Your task to perform on an android device: Go to CNN.com Image 0: 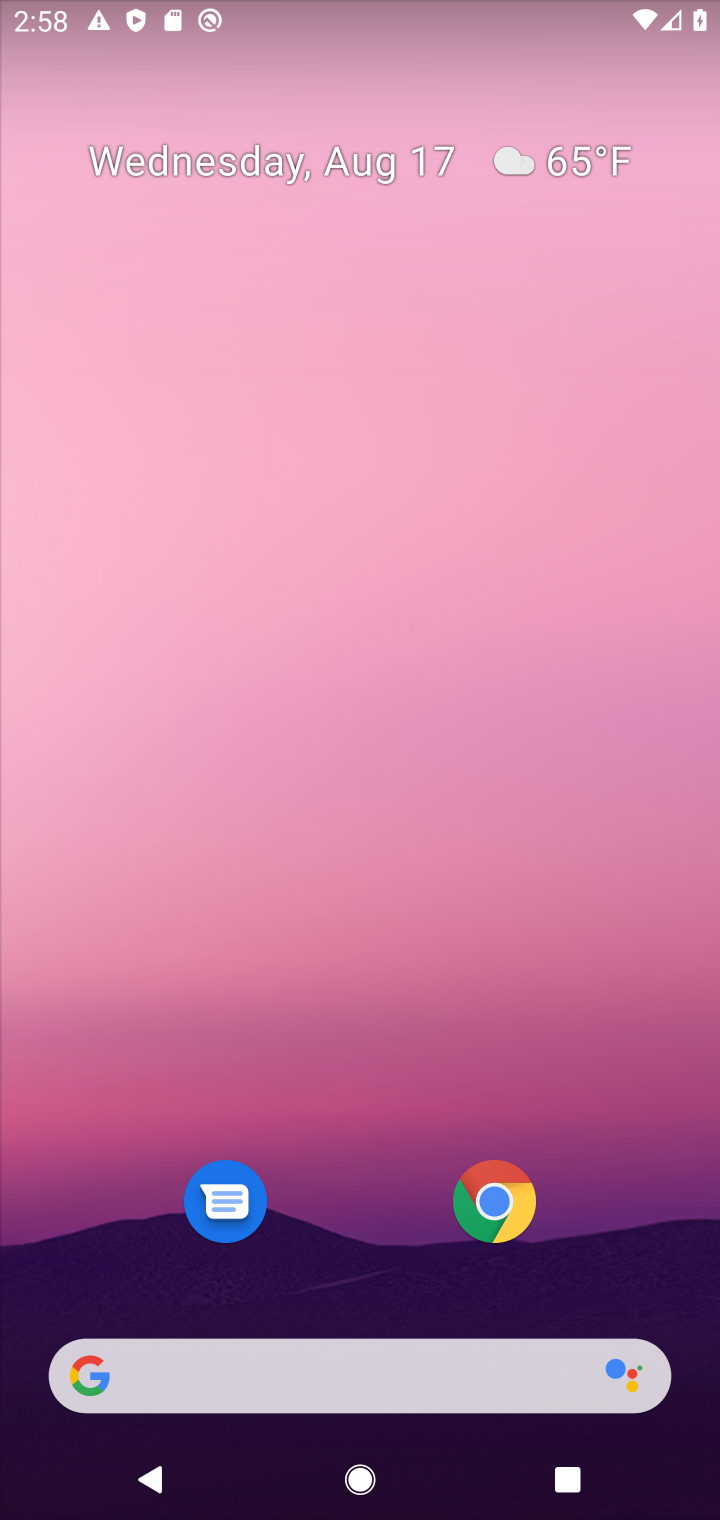
Step 0: click (487, 1195)
Your task to perform on an android device: Go to CNN.com Image 1: 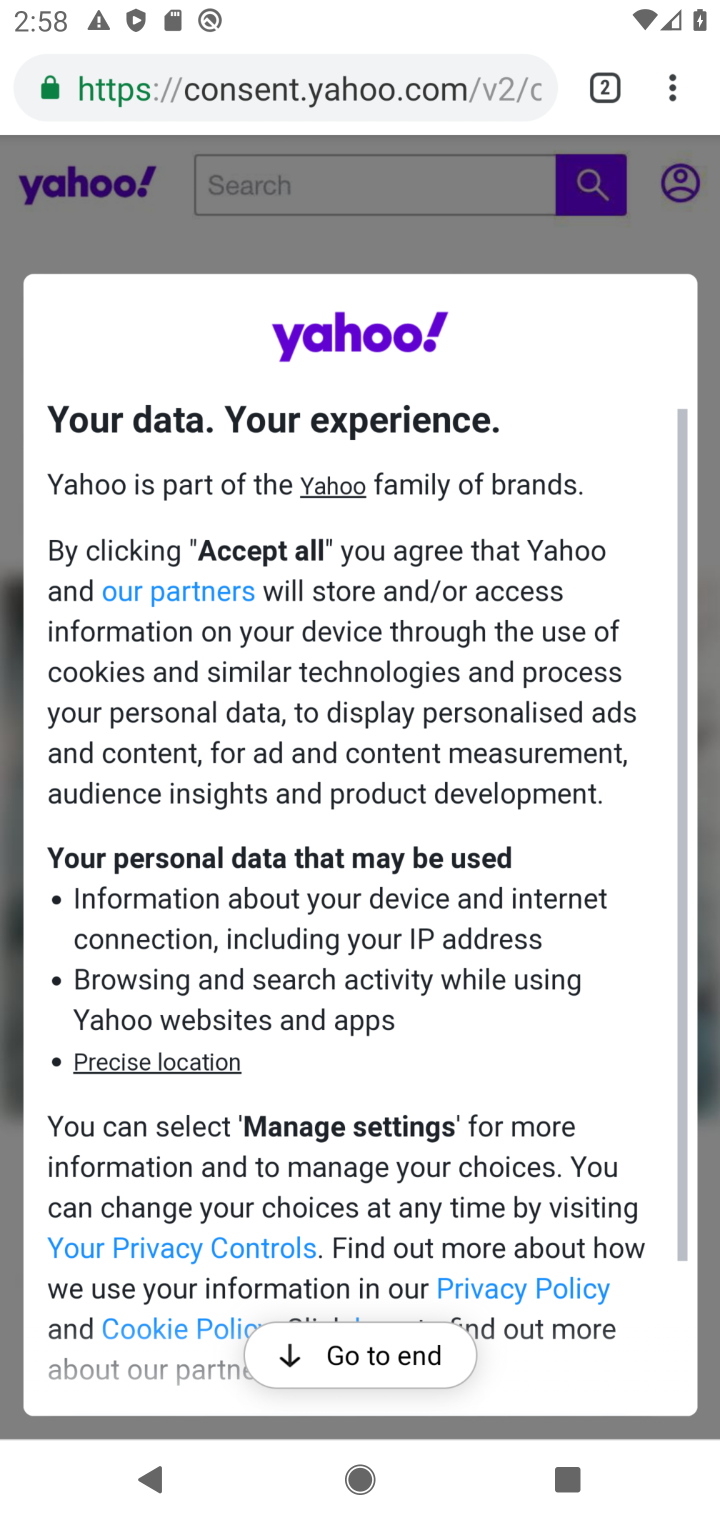
Step 1: click (594, 72)
Your task to perform on an android device: Go to CNN.com Image 2: 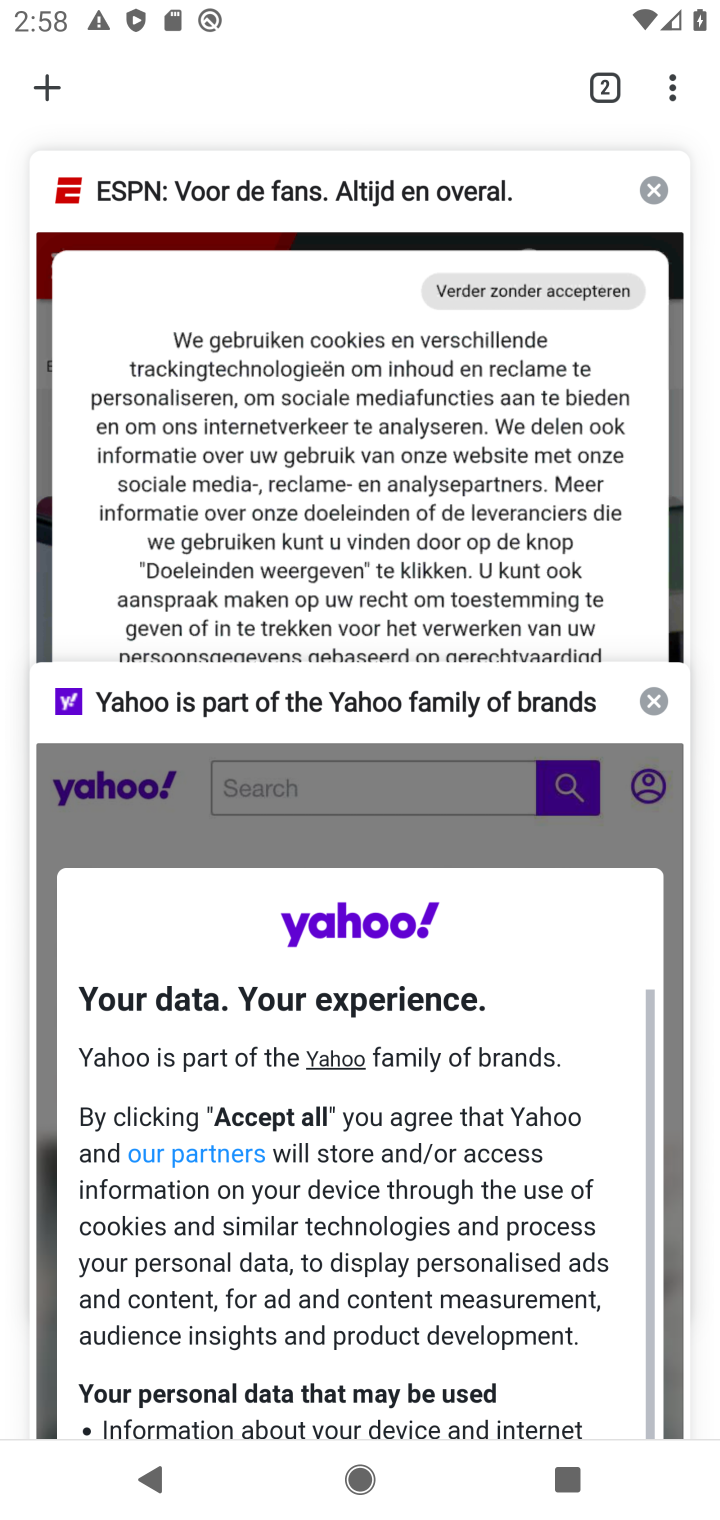
Step 2: click (48, 64)
Your task to perform on an android device: Go to CNN.com Image 3: 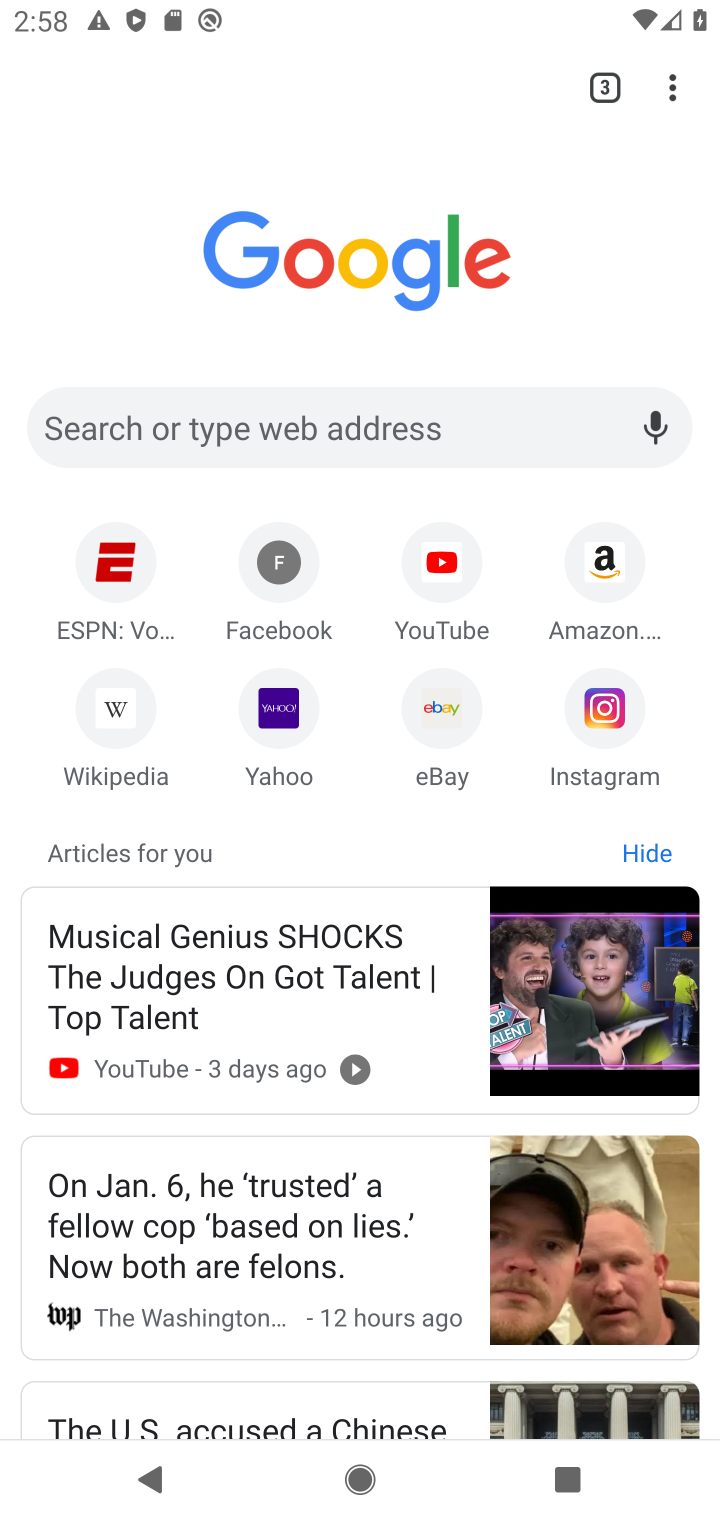
Step 3: click (260, 429)
Your task to perform on an android device: Go to CNN.com Image 4: 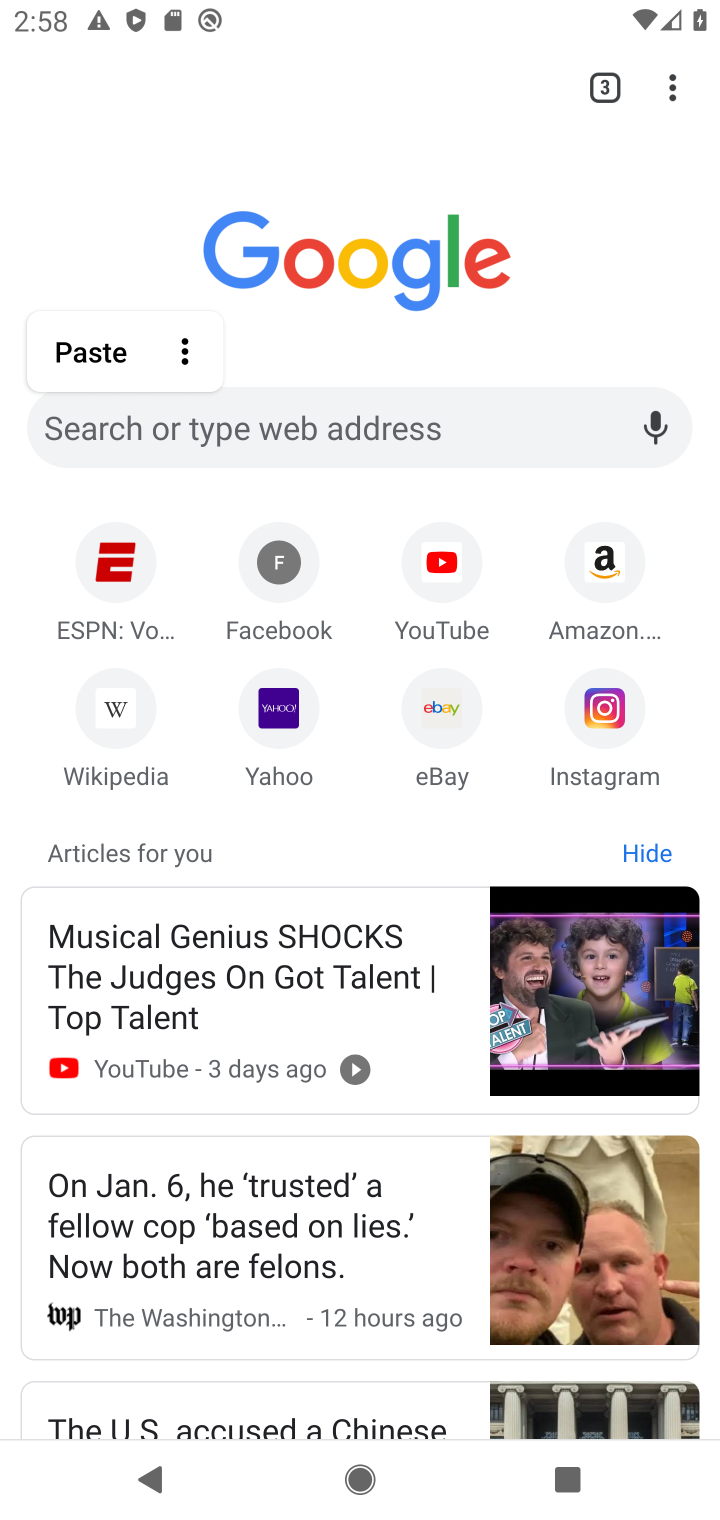
Step 4: type "cnn.com"
Your task to perform on an android device: Go to CNN.com Image 5: 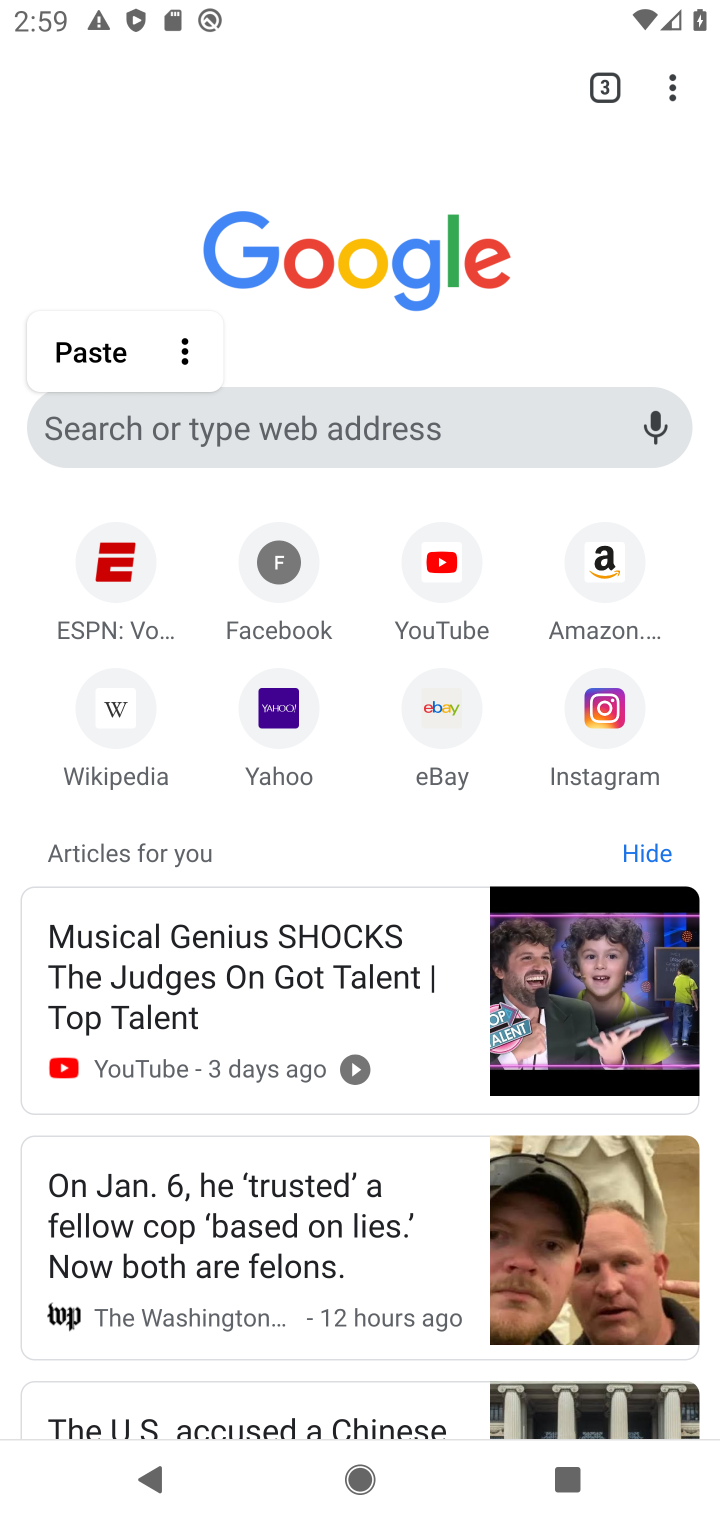
Step 5: click (371, 397)
Your task to perform on an android device: Go to CNN.com Image 6: 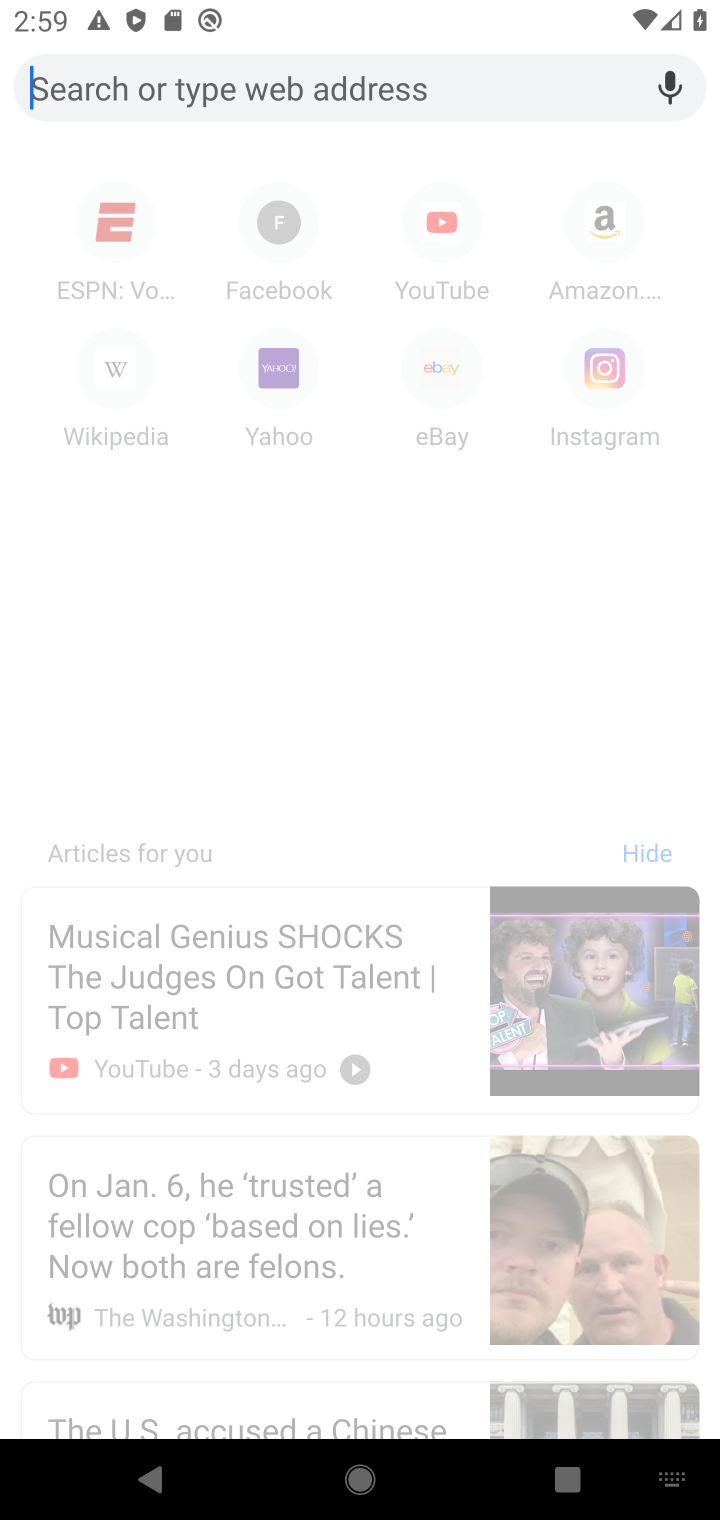
Step 6: click (144, 66)
Your task to perform on an android device: Go to CNN.com Image 7: 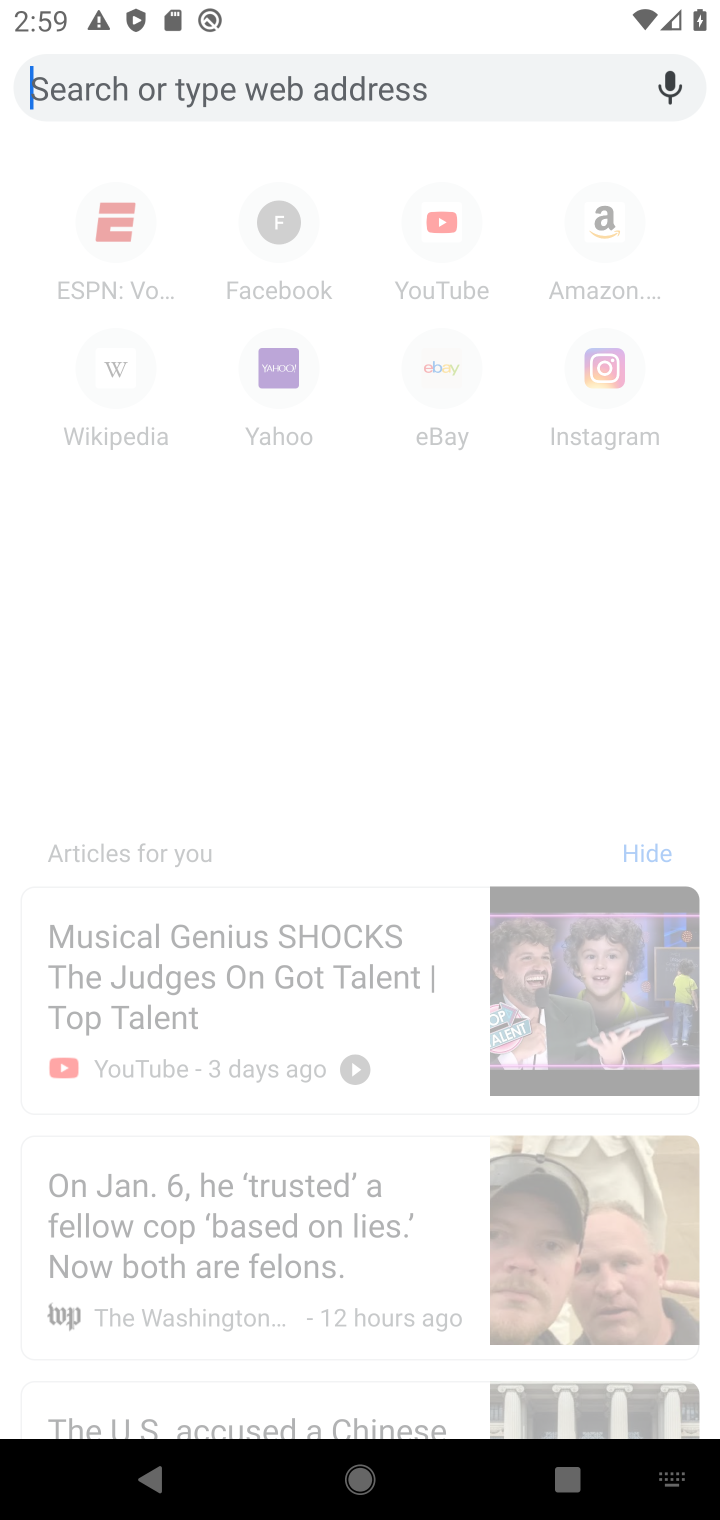
Step 7: click (178, 75)
Your task to perform on an android device: Go to CNN.com Image 8: 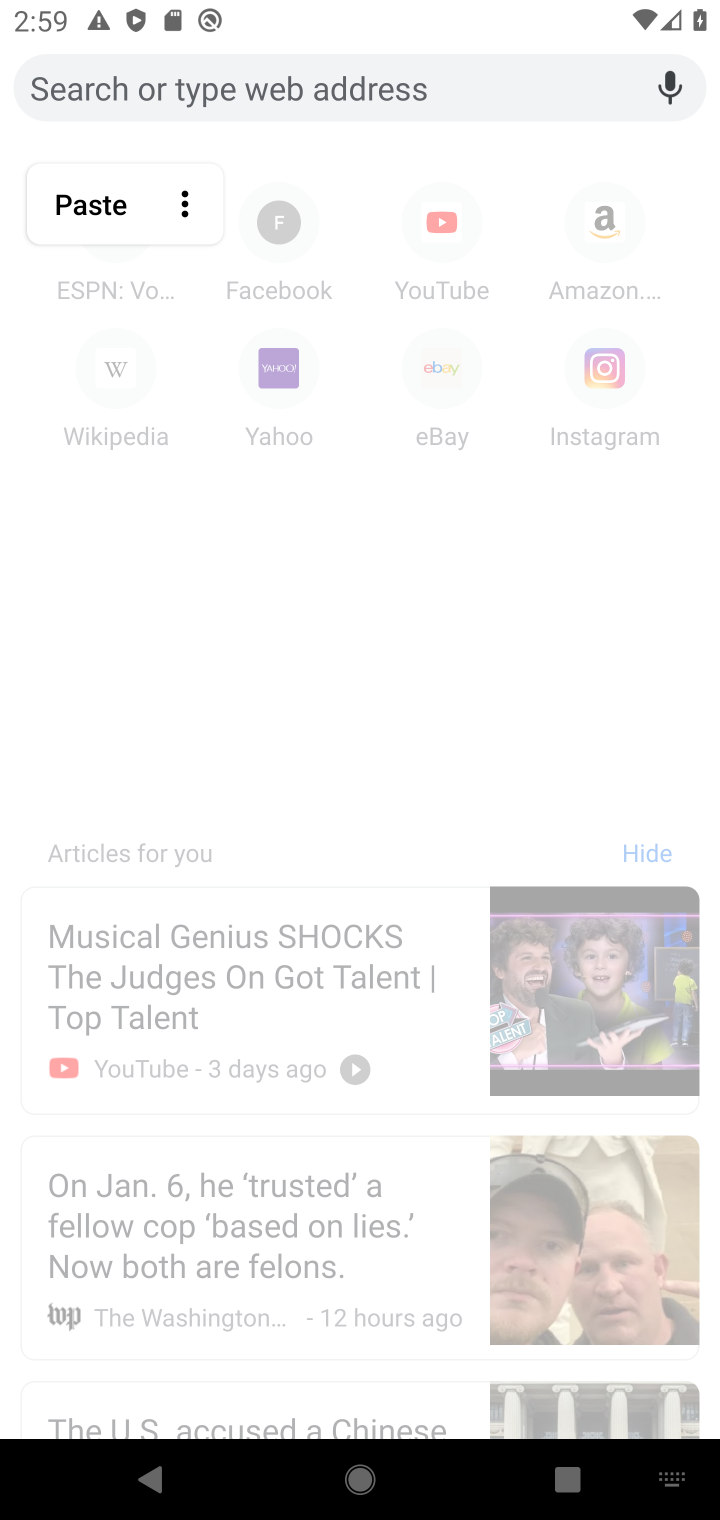
Step 8: type "cnn,com"
Your task to perform on an android device: Go to CNN.com Image 9: 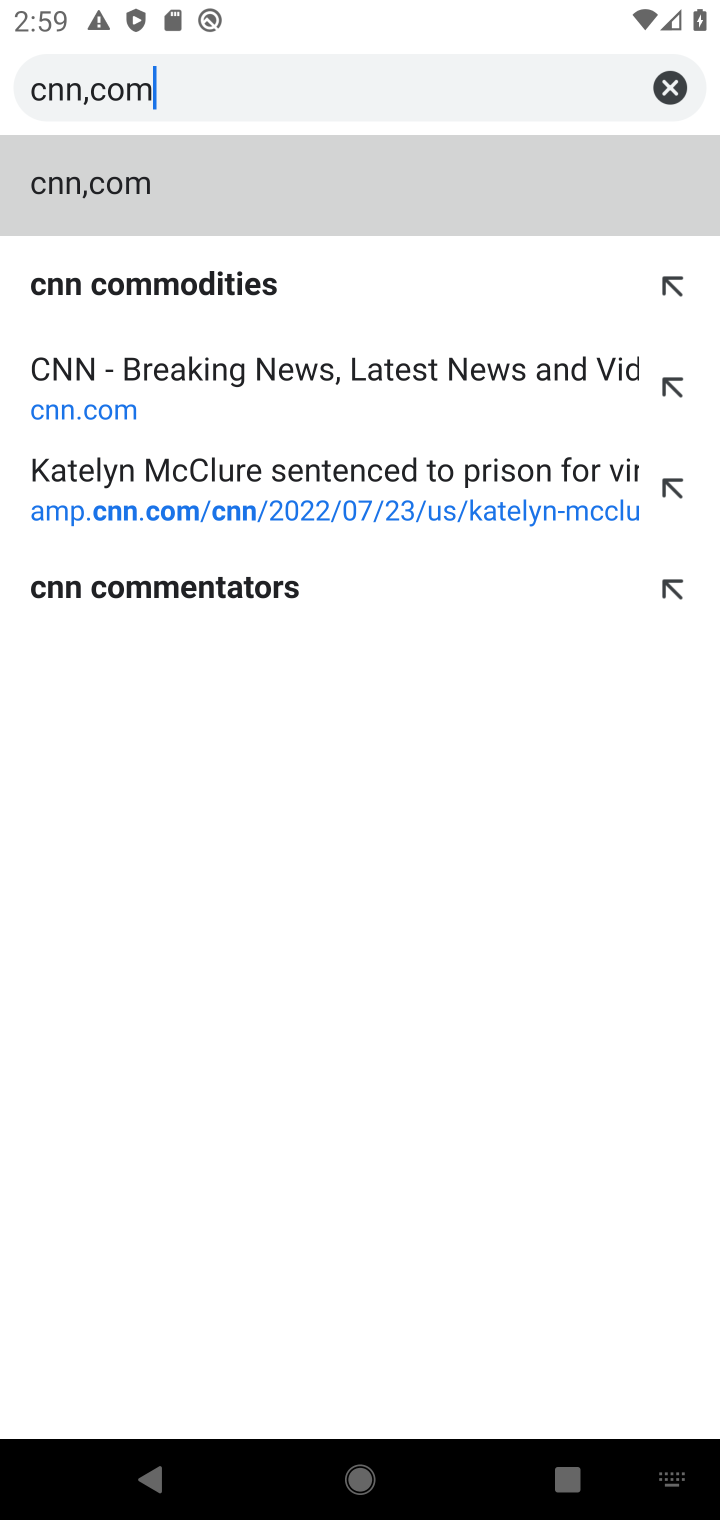
Step 9: task complete